Your task to perform on an android device: turn off data saver in the chrome app Image 0: 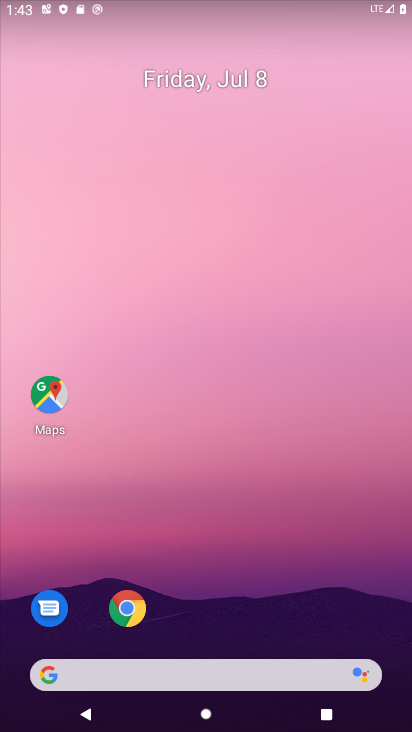
Step 0: click (128, 606)
Your task to perform on an android device: turn off data saver in the chrome app Image 1: 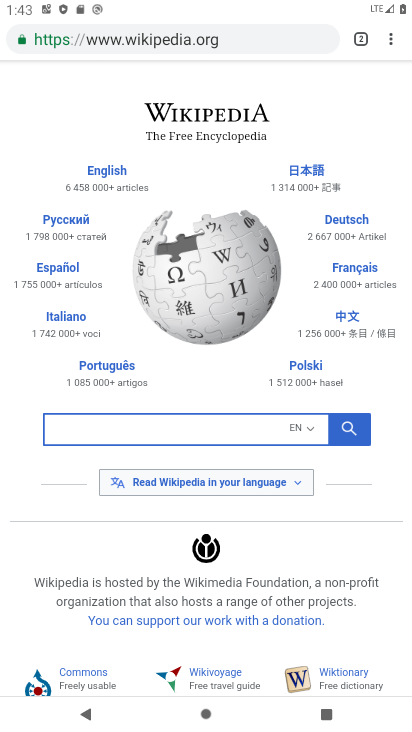
Step 1: click (390, 41)
Your task to perform on an android device: turn off data saver in the chrome app Image 2: 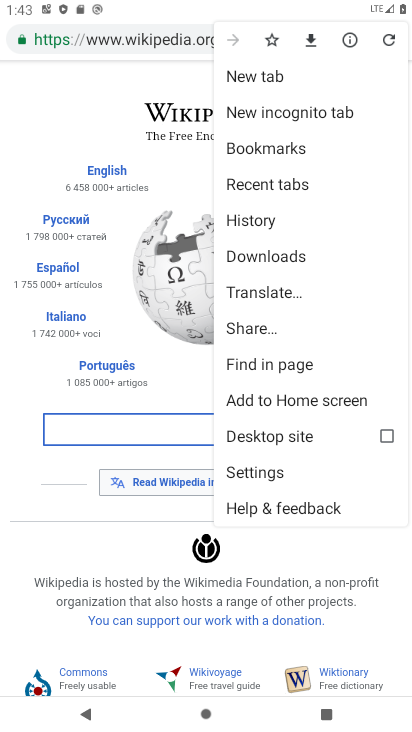
Step 2: click (267, 474)
Your task to perform on an android device: turn off data saver in the chrome app Image 3: 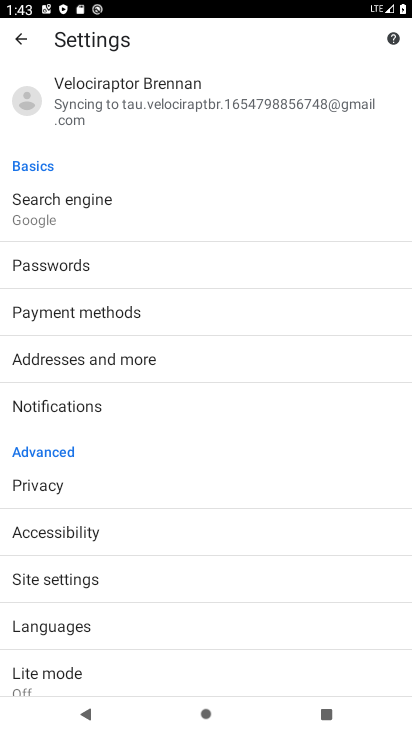
Step 3: drag from (175, 616) to (193, 301)
Your task to perform on an android device: turn off data saver in the chrome app Image 4: 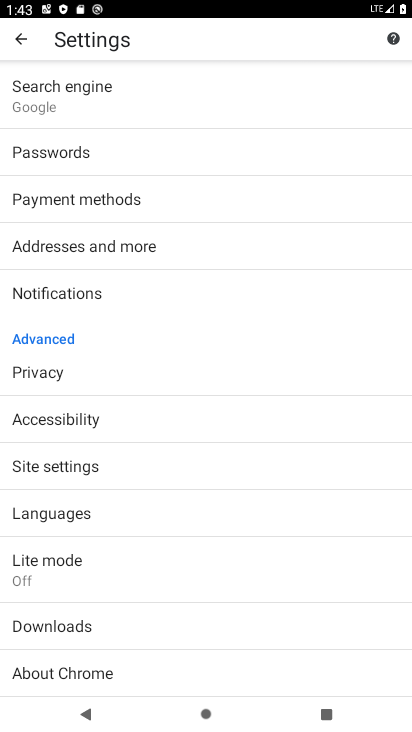
Step 4: click (34, 562)
Your task to perform on an android device: turn off data saver in the chrome app Image 5: 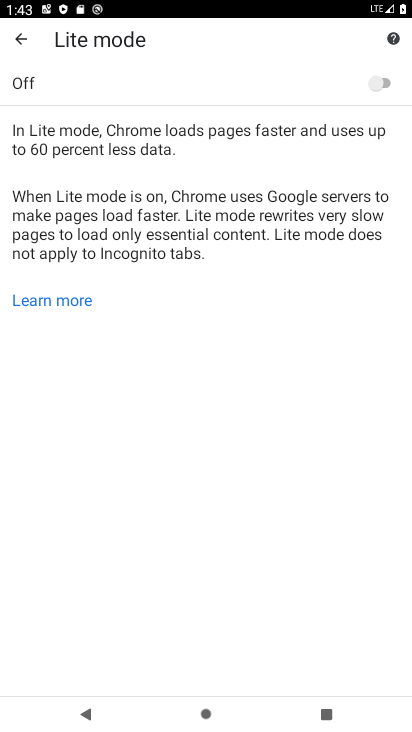
Step 5: task complete